Your task to perform on an android device: What's on my calendar today? Image 0: 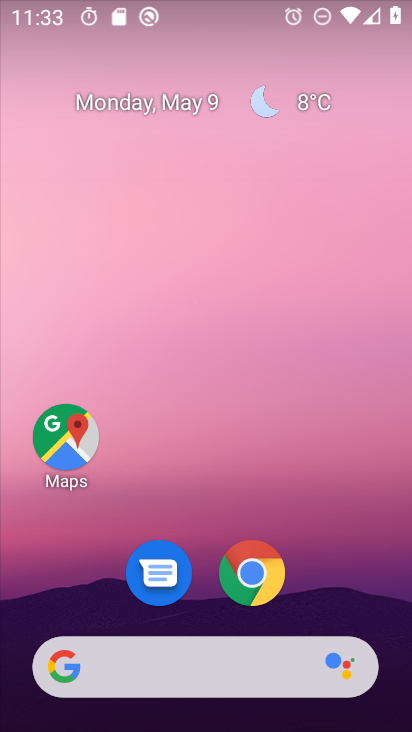
Step 0: drag from (366, 553) to (302, 104)
Your task to perform on an android device: What's on my calendar today? Image 1: 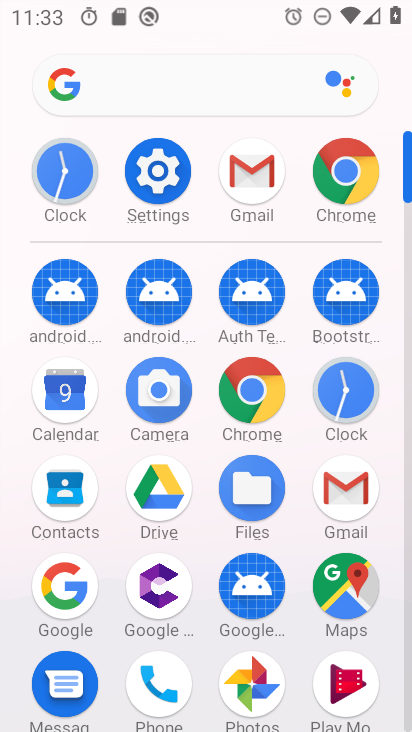
Step 1: click (73, 398)
Your task to perform on an android device: What's on my calendar today? Image 2: 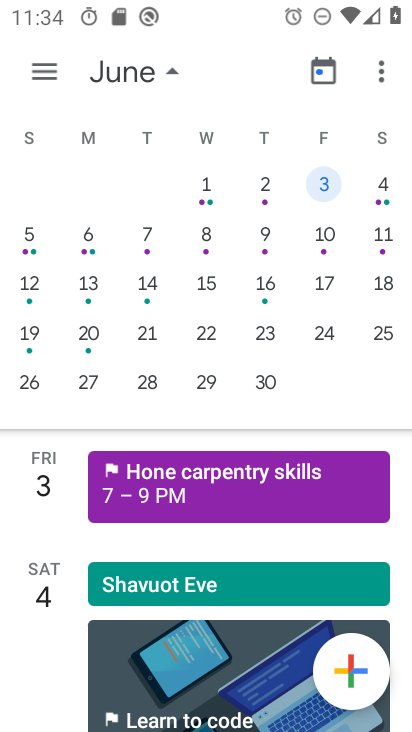
Step 2: drag from (37, 326) to (411, 296)
Your task to perform on an android device: What's on my calendar today? Image 3: 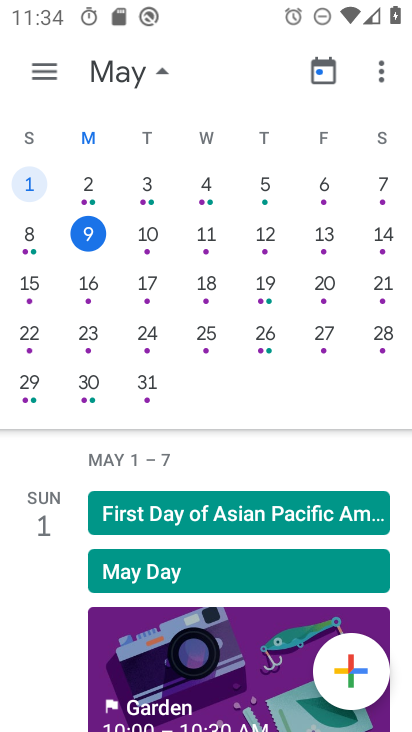
Step 3: click (85, 231)
Your task to perform on an android device: What's on my calendar today? Image 4: 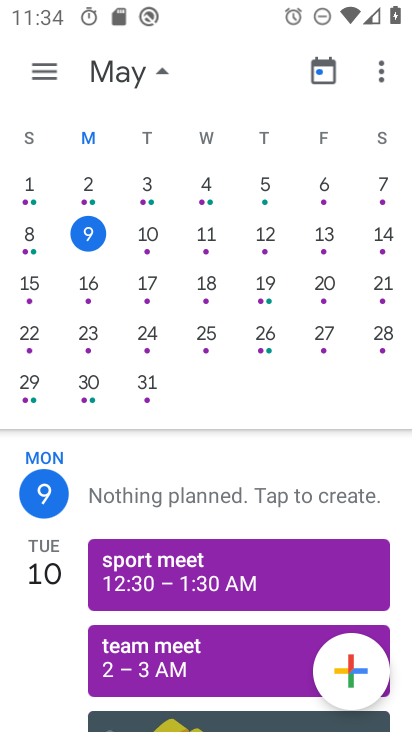
Step 4: click (37, 506)
Your task to perform on an android device: What's on my calendar today? Image 5: 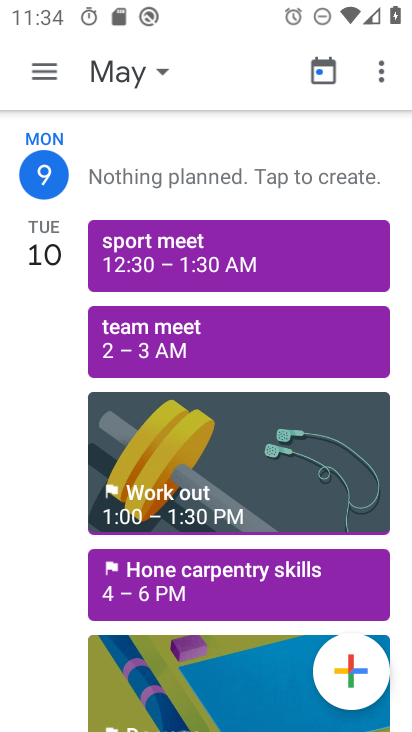
Step 5: click (166, 167)
Your task to perform on an android device: What's on my calendar today? Image 6: 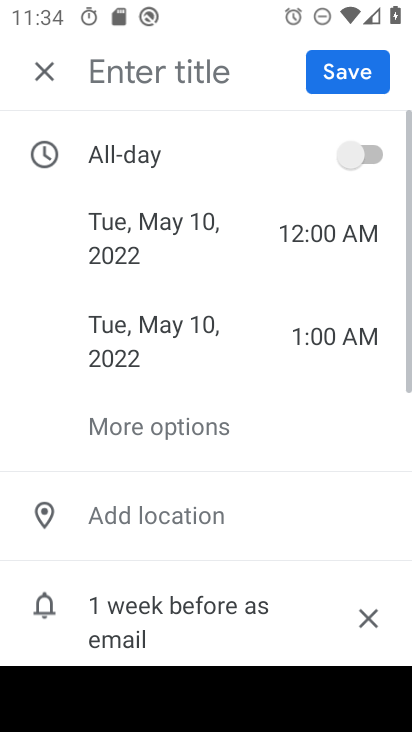
Step 6: task complete